Your task to perform on an android device: turn on sleep mode Image 0: 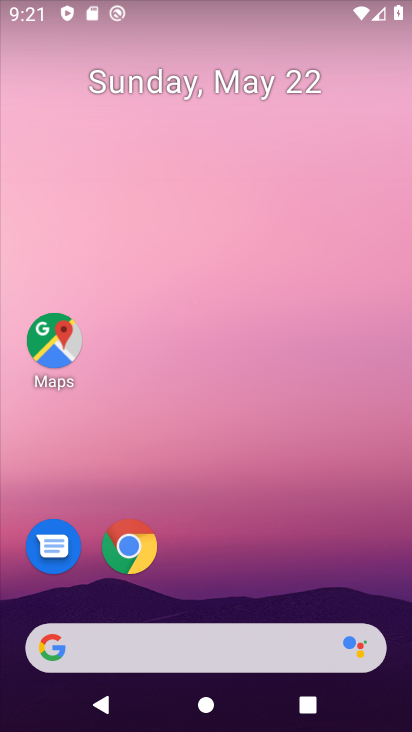
Step 0: drag from (252, 601) to (190, 43)
Your task to perform on an android device: turn on sleep mode Image 1: 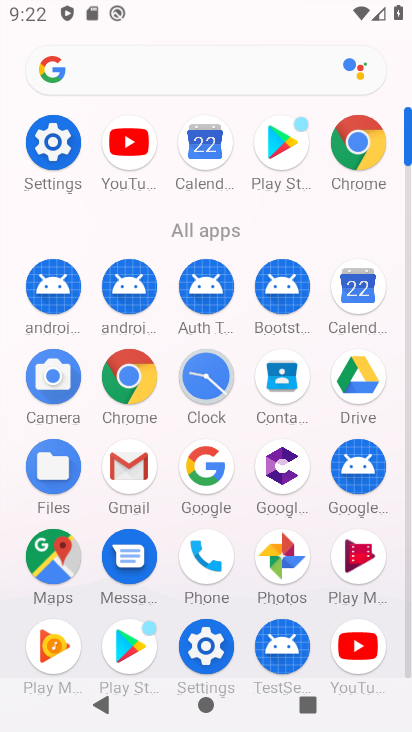
Step 1: click (67, 142)
Your task to perform on an android device: turn on sleep mode Image 2: 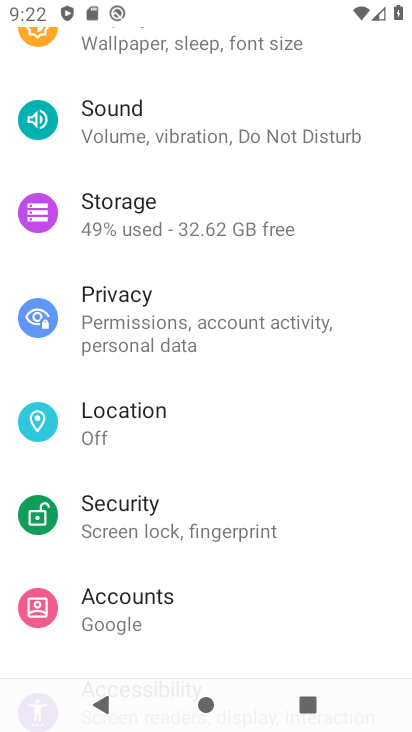
Step 2: click (177, 55)
Your task to perform on an android device: turn on sleep mode Image 3: 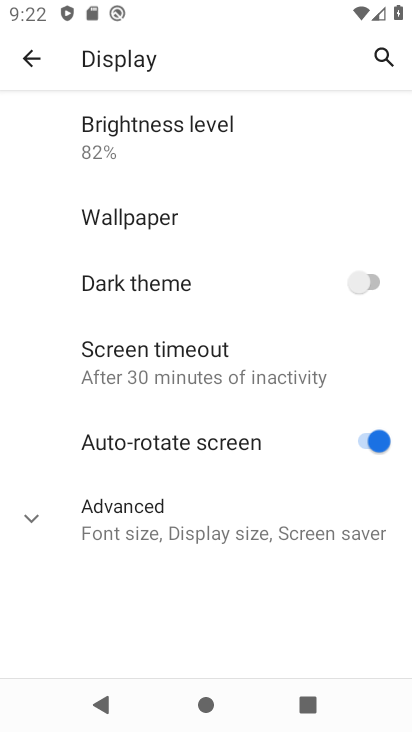
Step 3: click (231, 532)
Your task to perform on an android device: turn on sleep mode Image 4: 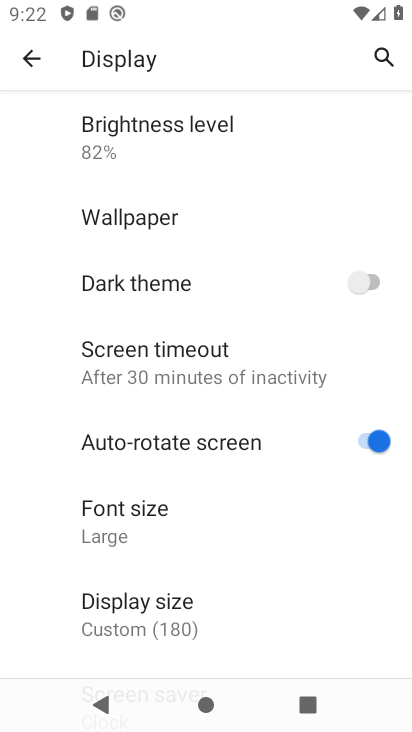
Step 4: task complete